Your task to perform on an android device: Open Google Maps and go to "Timeline" Image 0: 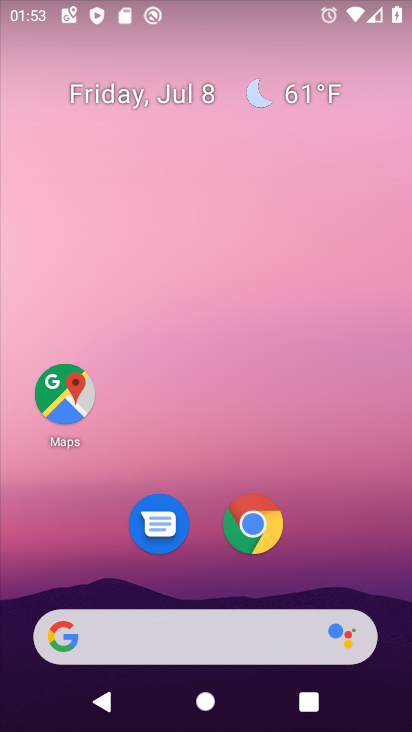
Step 0: click (67, 400)
Your task to perform on an android device: Open Google Maps and go to "Timeline" Image 1: 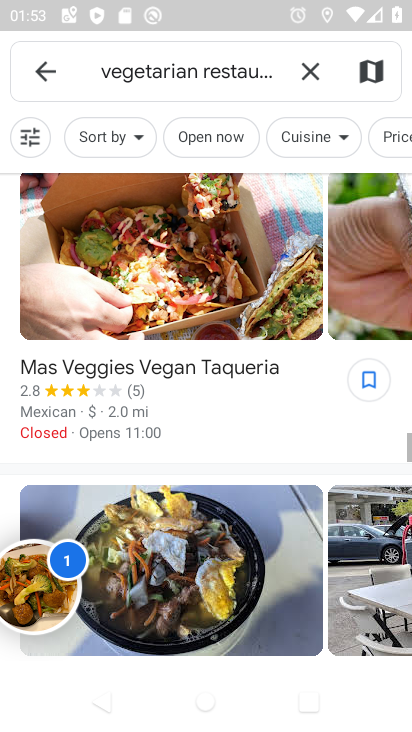
Step 1: click (47, 67)
Your task to perform on an android device: Open Google Maps and go to "Timeline" Image 2: 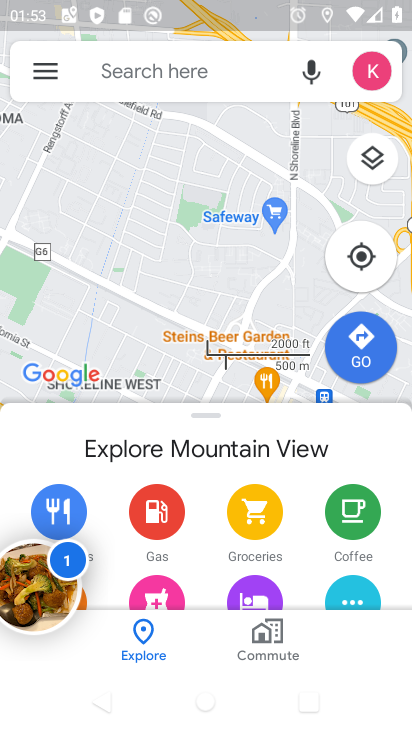
Step 2: click (44, 68)
Your task to perform on an android device: Open Google Maps and go to "Timeline" Image 3: 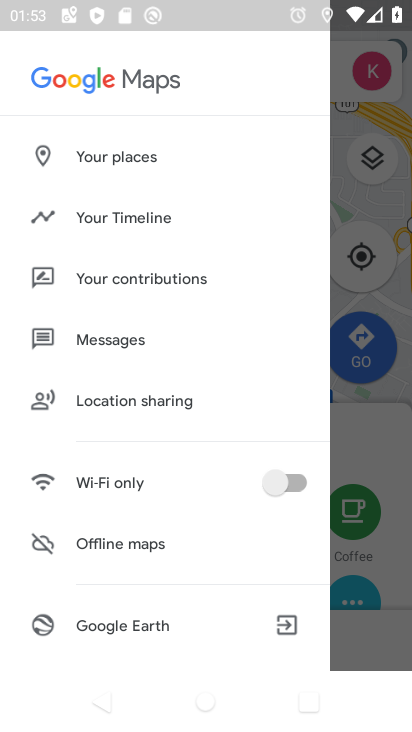
Step 3: click (131, 209)
Your task to perform on an android device: Open Google Maps and go to "Timeline" Image 4: 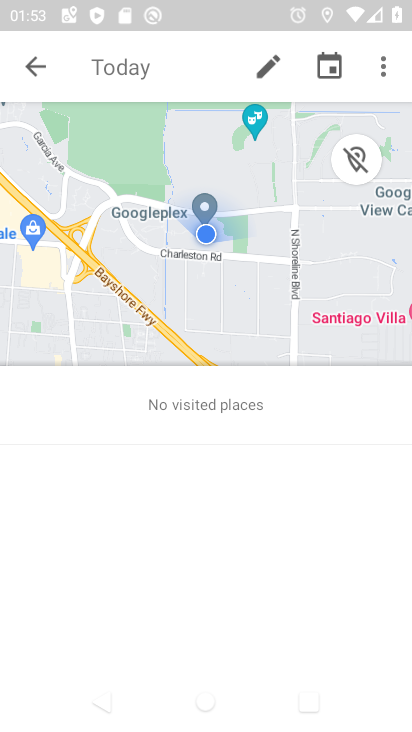
Step 4: task complete